Your task to perform on an android device: Open Amazon Image 0: 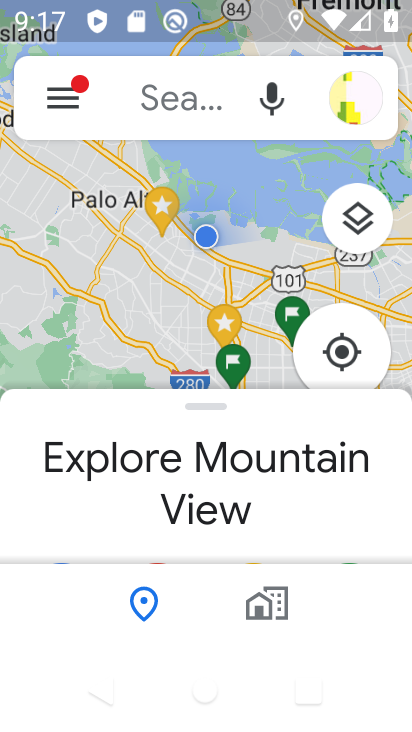
Step 0: press home button
Your task to perform on an android device: Open Amazon Image 1: 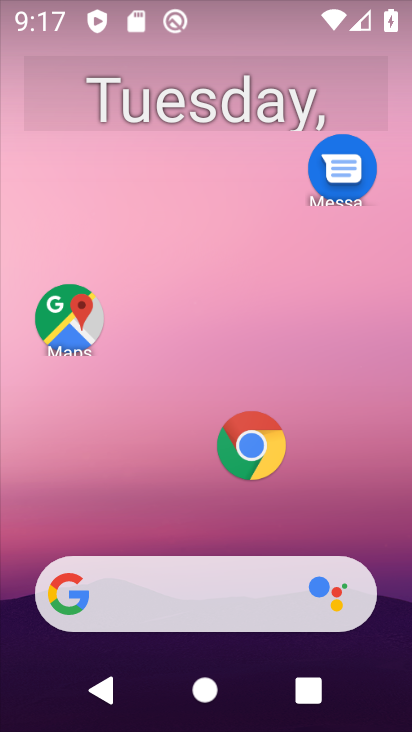
Step 1: drag from (149, 595) to (325, 422)
Your task to perform on an android device: Open Amazon Image 2: 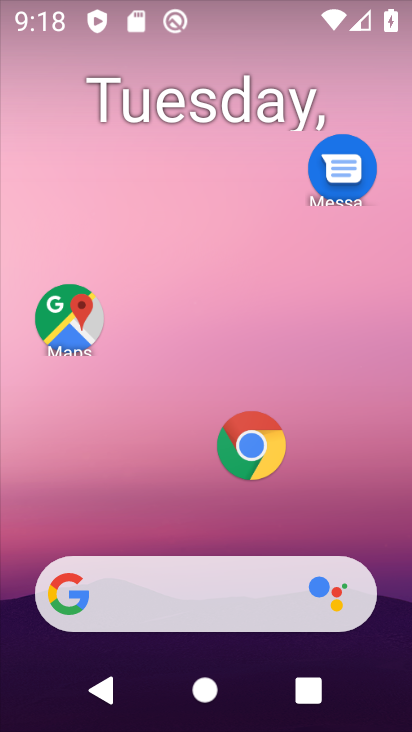
Step 2: drag from (121, 479) to (279, 236)
Your task to perform on an android device: Open Amazon Image 3: 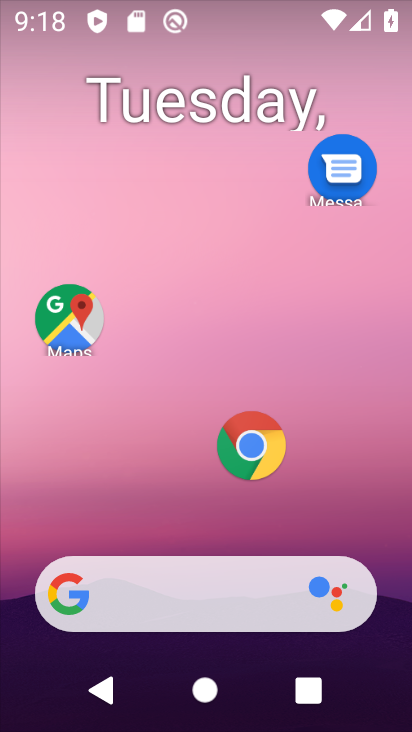
Step 3: drag from (58, 498) to (190, 194)
Your task to perform on an android device: Open Amazon Image 4: 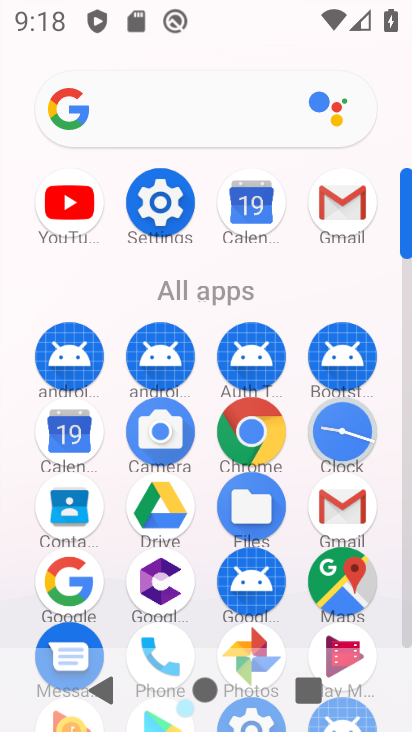
Step 4: click (239, 423)
Your task to perform on an android device: Open Amazon Image 5: 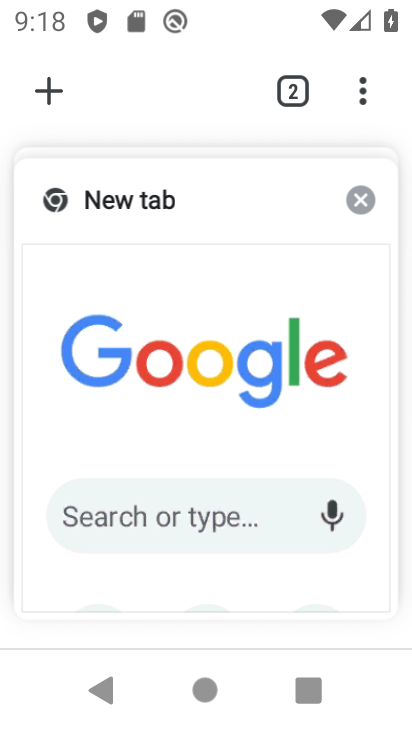
Step 5: click (317, 303)
Your task to perform on an android device: Open Amazon Image 6: 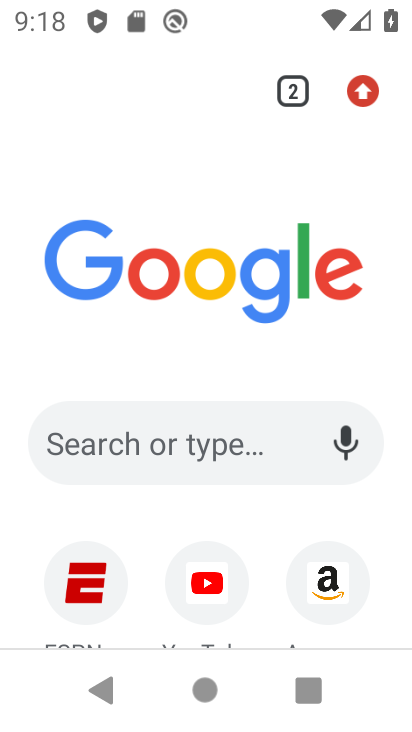
Step 6: click (357, 595)
Your task to perform on an android device: Open Amazon Image 7: 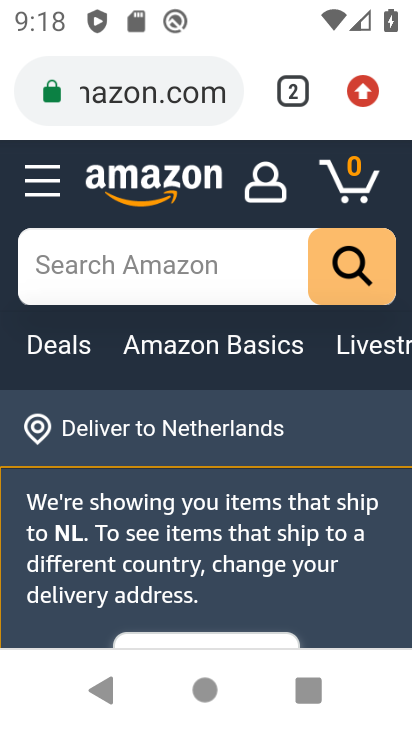
Step 7: task complete